Your task to perform on an android device: change the clock display to show seconds Image 0: 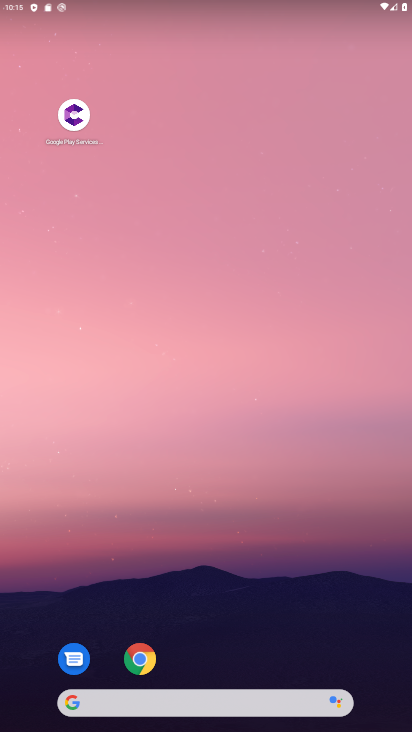
Step 0: drag from (200, 622) to (219, 93)
Your task to perform on an android device: change the clock display to show seconds Image 1: 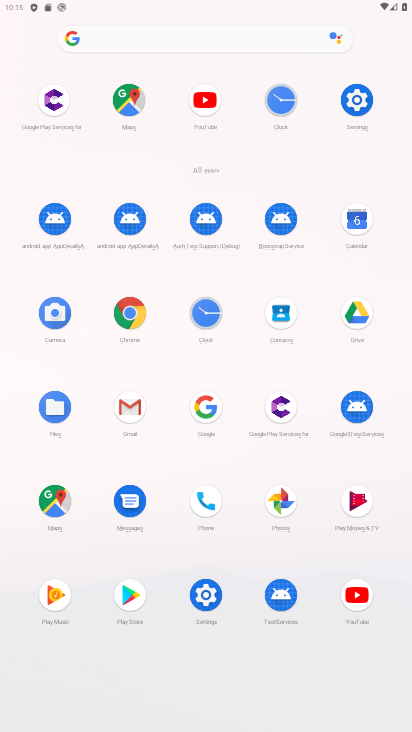
Step 1: click (278, 99)
Your task to perform on an android device: change the clock display to show seconds Image 2: 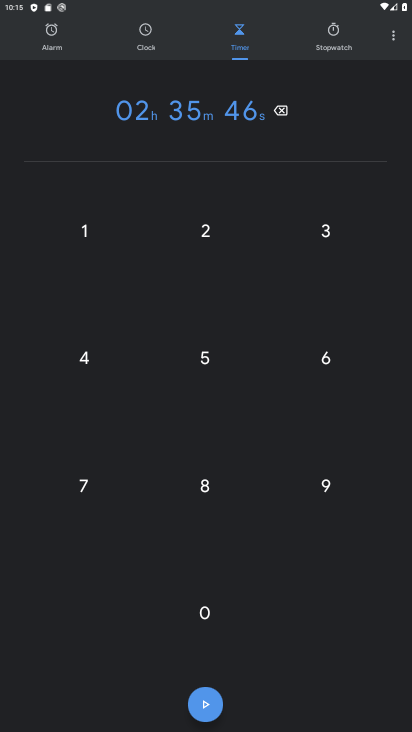
Step 2: click (399, 42)
Your task to perform on an android device: change the clock display to show seconds Image 3: 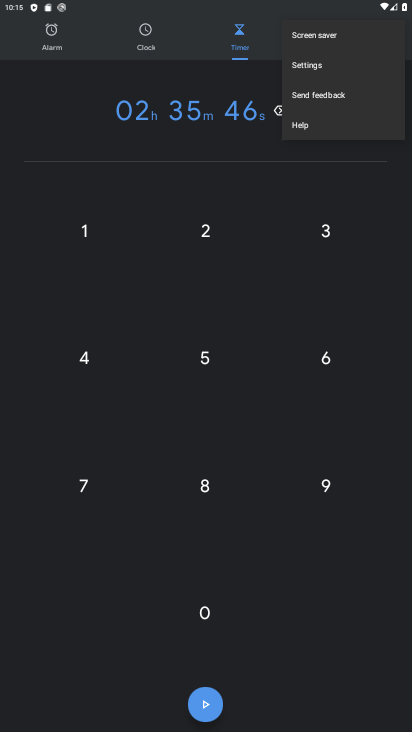
Step 3: click (310, 68)
Your task to perform on an android device: change the clock display to show seconds Image 4: 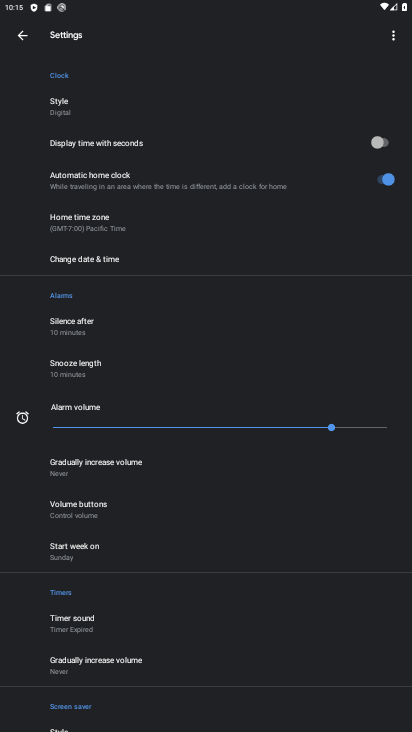
Step 4: click (24, 32)
Your task to perform on an android device: change the clock display to show seconds Image 5: 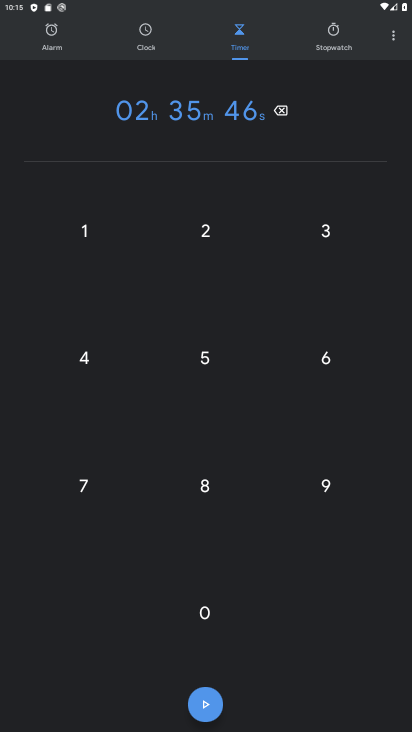
Step 5: click (396, 36)
Your task to perform on an android device: change the clock display to show seconds Image 6: 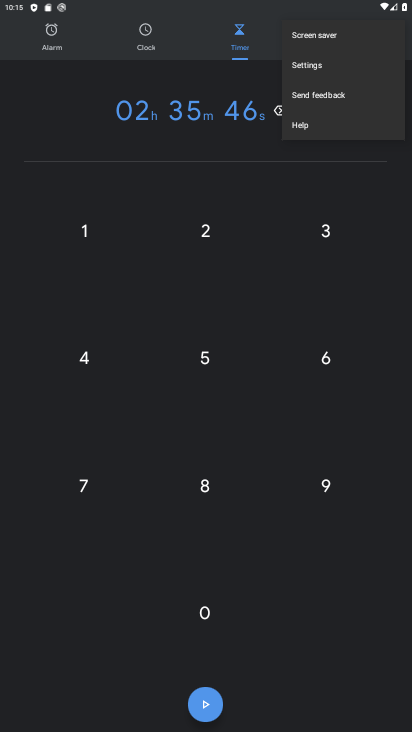
Step 6: click (311, 72)
Your task to perform on an android device: change the clock display to show seconds Image 7: 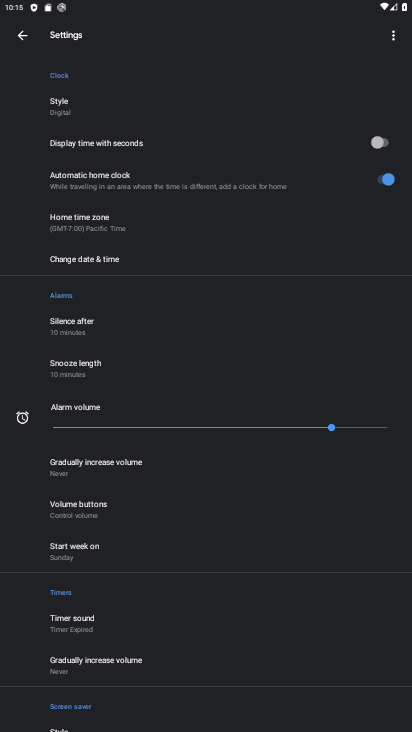
Step 7: click (86, 111)
Your task to perform on an android device: change the clock display to show seconds Image 8: 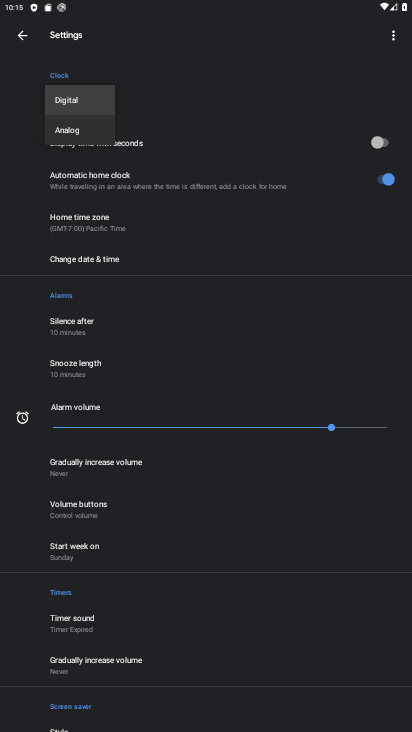
Step 8: click (93, 99)
Your task to perform on an android device: change the clock display to show seconds Image 9: 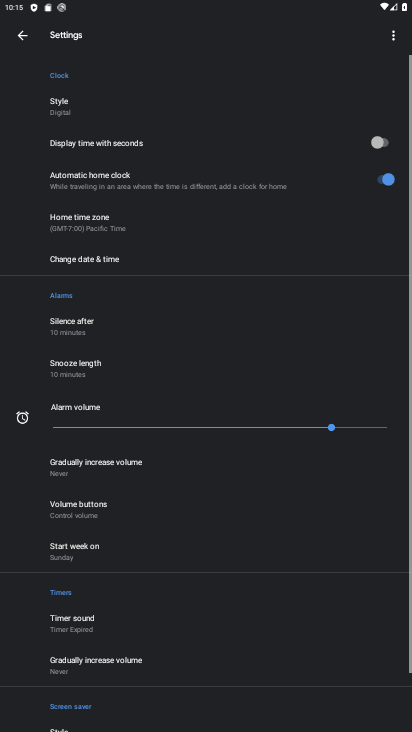
Step 9: click (375, 138)
Your task to perform on an android device: change the clock display to show seconds Image 10: 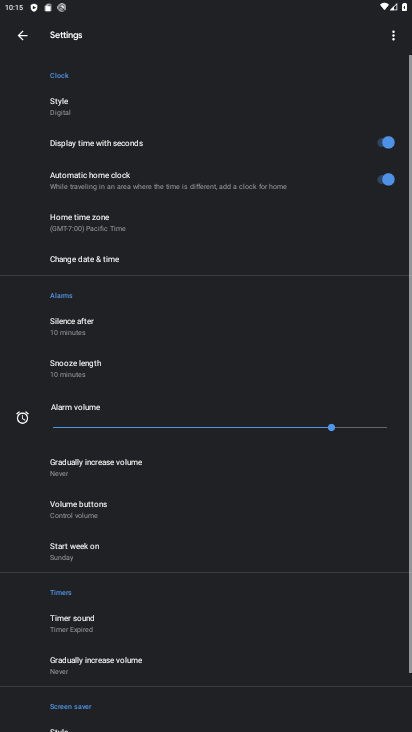
Step 10: task complete